Your task to perform on an android device: Open Yahoo.com Image 0: 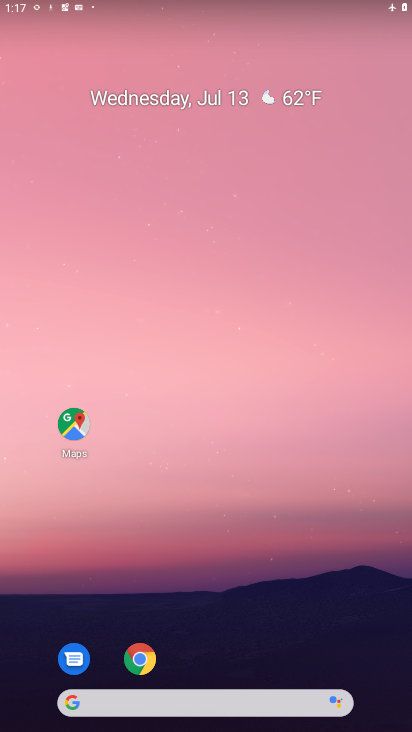
Step 0: drag from (243, 725) to (205, 100)
Your task to perform on an android device: Open Yahoo.com Image 1: 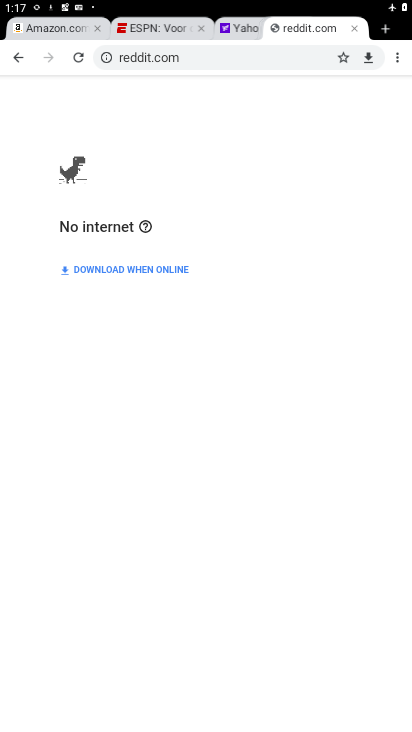
Step 1: press home button
Your task to perform on an android device: Open Yahoo.com Image 2: 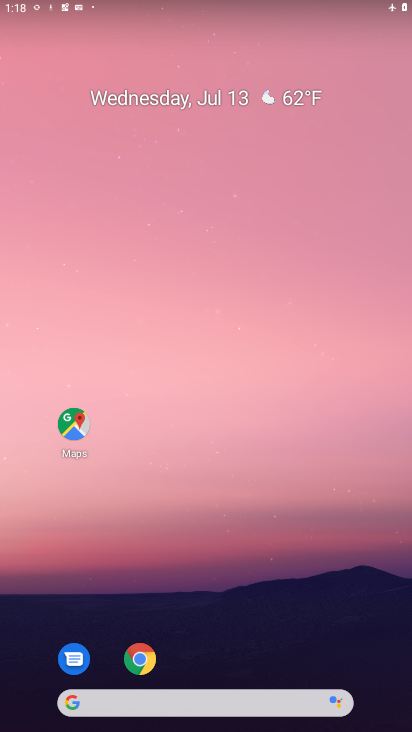
Step 2: drag from (231, 723) to (192, 11)
Your task to perform on an android device: Open Yahoo.com Image 3: 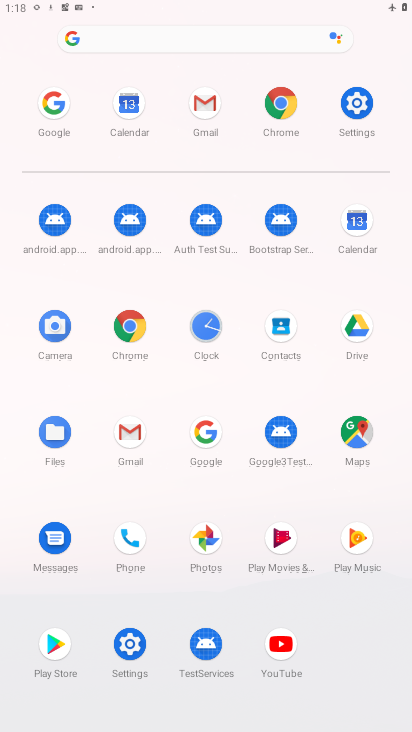
Step 3: click (279, 103)
Your task to perform on an android device: Open Yahoo.com Image 4: 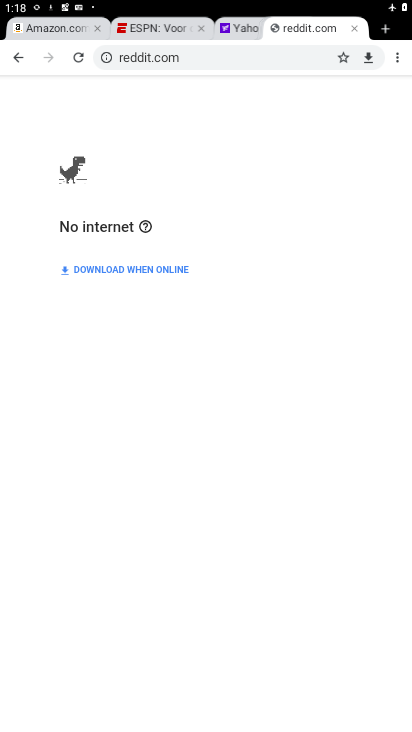
Step 4: task complete